Your task to perform on an android device: Open display settings Image 0: 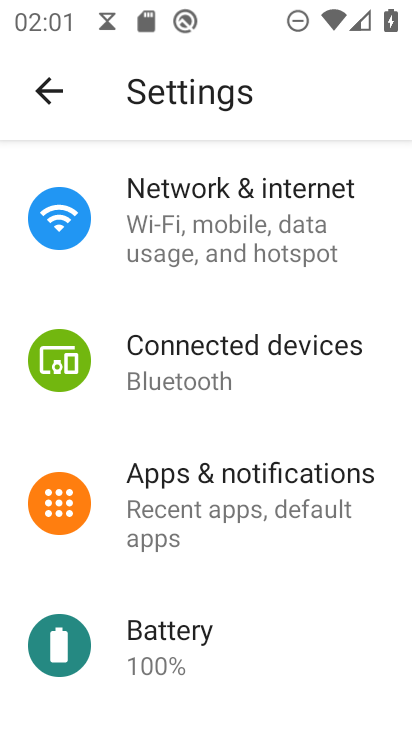
Step 0: drag from (211, 588) to (228, 203)
Your task to perform on an android device: Open display settings Image 1: 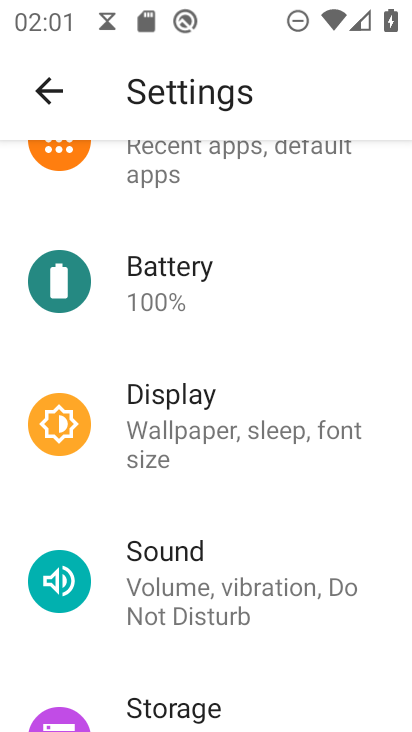
Step 1: click (248, 431)
Your task to perform on an android device: Open display settings Image 2: 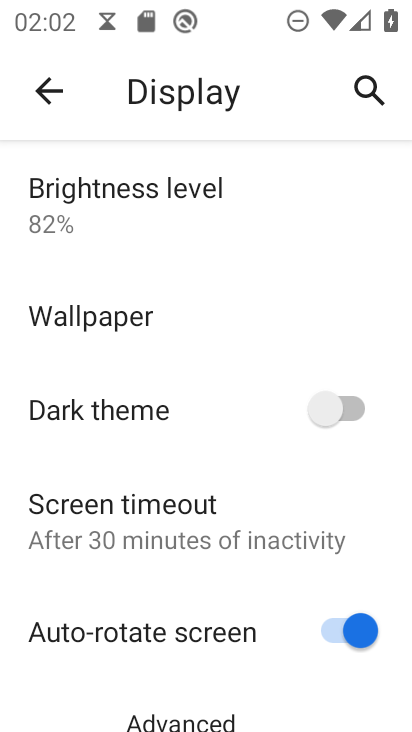
Step 2: task complete